Your task to perform on an android device: Open Google Chrome and open the bookmarks view Image 0: 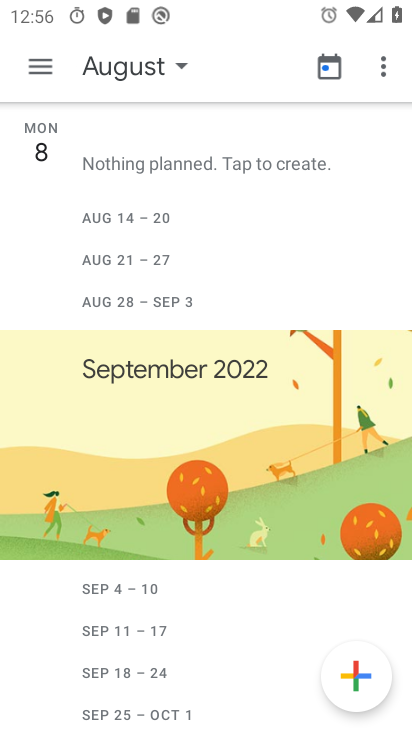
Step 0: press home button
Your task to perform on an android device: Open Google Chrome and open the bookmarks view Image 1: 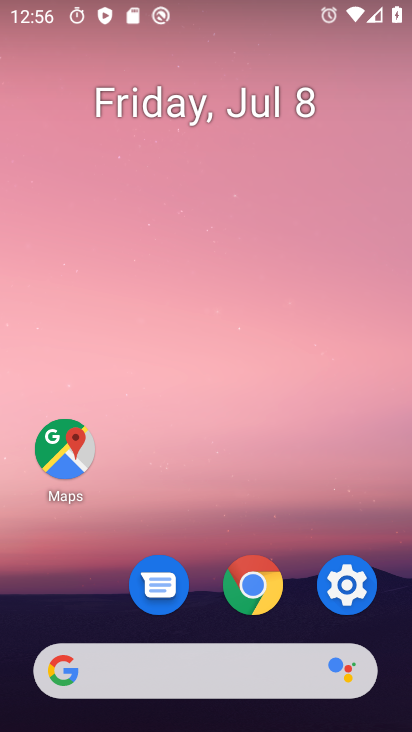
Step 1: click (268, 580)
Your task to perform on an android device: Open Google Chrome and open the bookmarks view Image 2: 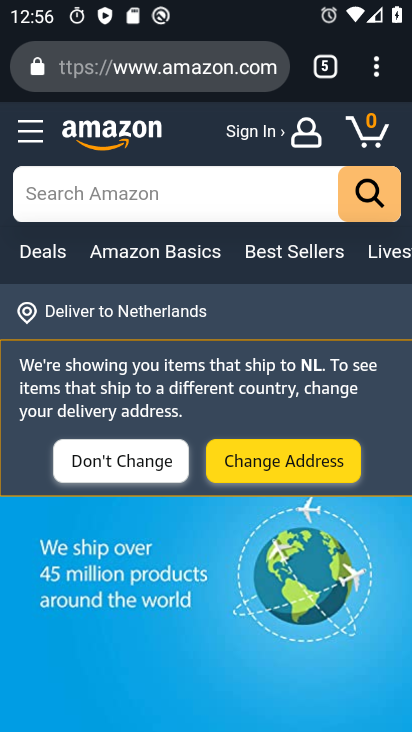
Step 2: click (380, 62)
Your task to perform on an android device: Open Google Chrome and open the bookmarks view Image 3: 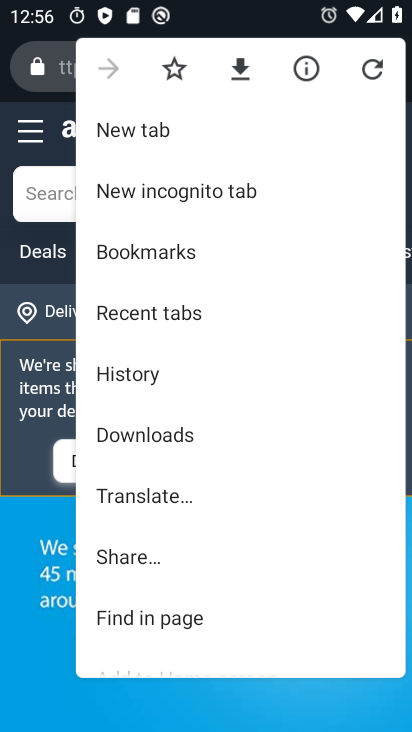
Step 3: click (181, 257)
Your task to perform on an android device: Open Google Chrome and open the bookmarks view Image 4: 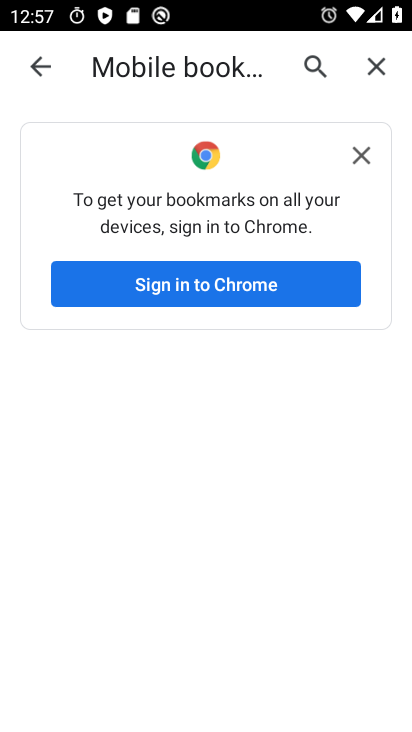
Step 4: click (359, 155)
Your task to perform on an android device: Open Google Chrome and open the bookmarks view Image 5: 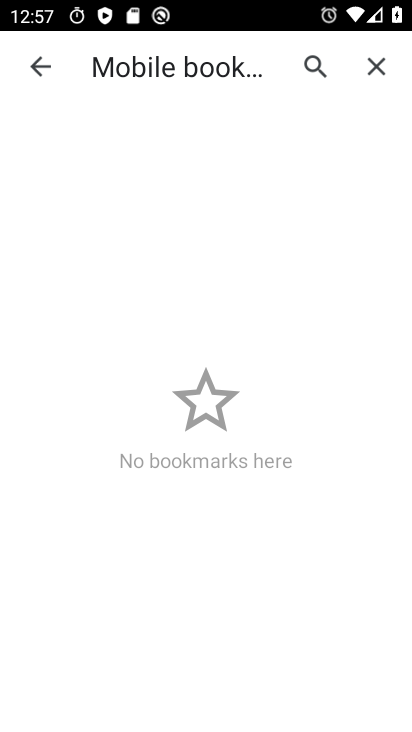
Step 5: task complete